Your task to perform on an android device: Clear all items from cart on amazon.com. Search for "razer huntsman" on amazon.com, select the first entry, add it to the cart, then select checkout. Image 0: 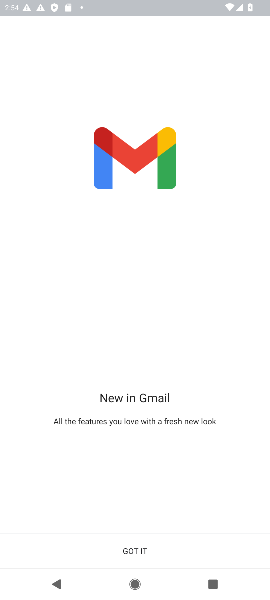
Step 0: press home button
Your task to perform on an android device: Clear all items from cart on amazon.com. Search for "razer huntsman" on amazon.com, select the first entry, add it to the cart, then select checkout. Image 1: 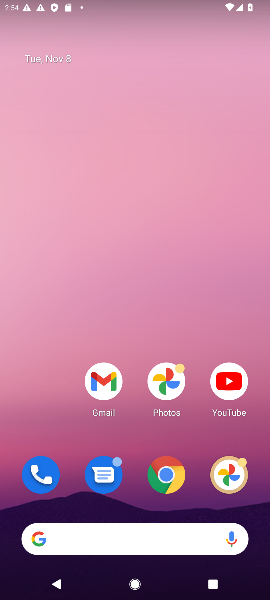
Step 1: drag from (115, 491) to (138, 34)
Your task to perform on an android device: Clear all items from cart on amazon.com. Search for "razer huntsman" on amazon.com, select the first entry, add it to the cart, then select checkout. Image 2: 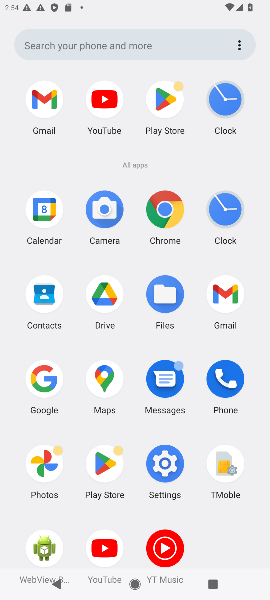
Step 2: click (41, 377)
Your task to perform on an android device: Clear all items from cart on amazon.com. Search for "razer huntsman" on amazon.com, select the first entry, add it to the cart, then select checkout. Image 3: 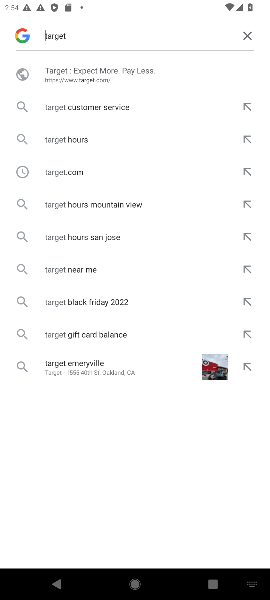
Step 3: click (244, 35)
Your task to perform on an android device: Clear all items from cart on amazon.com. Search for "razer huntsman" on amazon.com, select the first entry, add it to the cart, then select checkout. Image 4: 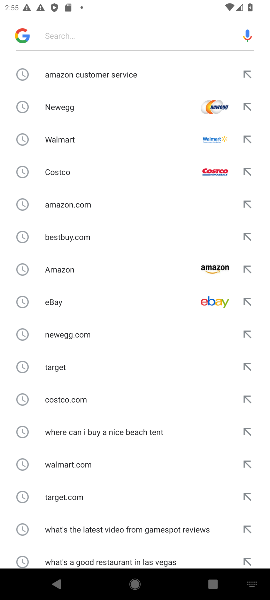
Step 4: click (82, 70)
Your task to perform on an android device: Clear all items from cart on amazon.com. Search for "razer huntsman" on amazon.com, select the first entry, add it to the cart, then select checkout. Image 5: 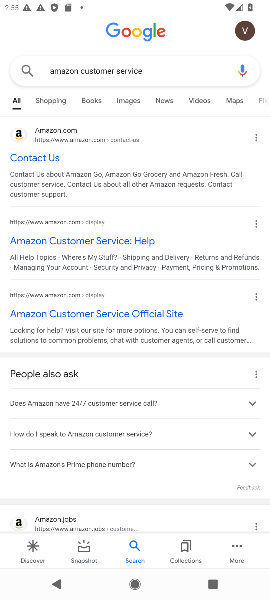
Step 5: click (22, 126)
Your task to perform on an android device: Clear all items from cart on amazon.com. Search for "razer huntsman" on amazon.com, select the first entry, add it to the cart, then select checkout. Image 6: 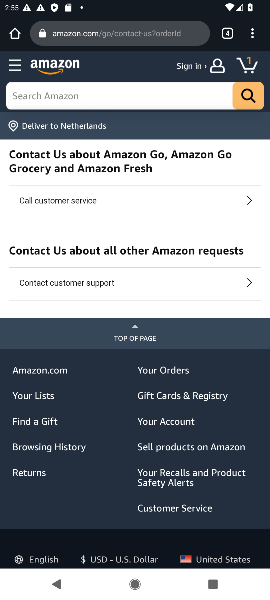
Step 6: click (83, 86)
Your task to perform on an android device: Clear all items from cart on amazon.com. Search for "razer huntsman" on amazon.com, select the first entry, add it to the cart, then select checkout. Image 7: 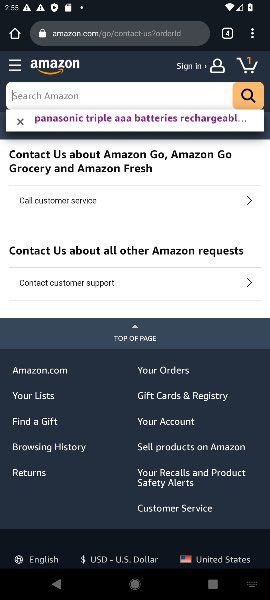
Step 7: type "razer huntsman "
Your task to perform on an android device: Clear all items from cart on amazon.com. Search for "razer huntsman" on amazon.com, select the first entry, add it to the cart, then select checkout. Image 8: 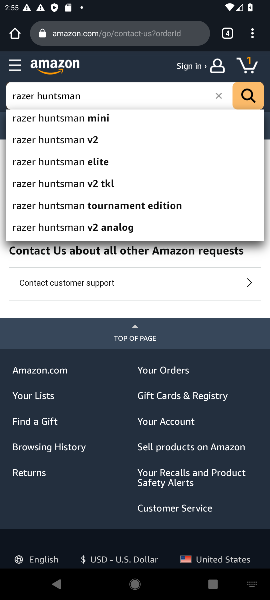
Step 8: click (73, 115)
Your task to perform on an android device: Clear all items from cart on amazon.com. Search for "razer huntsman" on amazon.com, select the first entry, add it to the cart, then select checkout. Image 9: 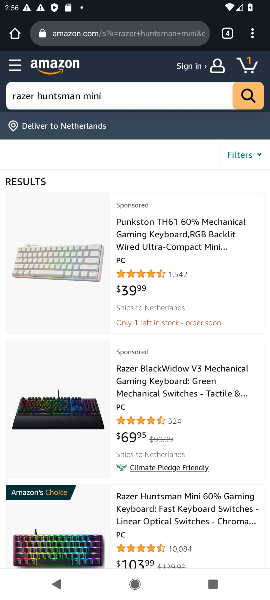
Step 9: click (183, 515)
Your task to perform on an android device: Clear all items from cart on amazon.com. Search for "razer huntsman" on amazon.com, select the first entry, add it to the cart, then select checkout. Image 10: 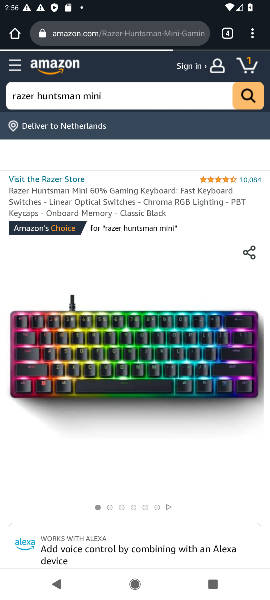
Step 10: drag from (158, 518) to (186, 159)
Your task to perform on an android device: Clear all items from cart on amazon.com. Search for "razer huntsman" on amazon.com, select the first entry, add it to the cart, then select checkout. Image 11: 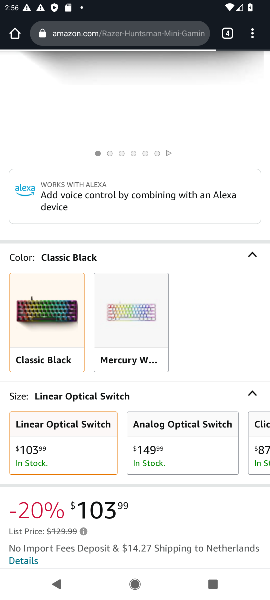
Step 11: drag from (91, 521) to (123, 117)
Your task to perform on an android device: Clear all items from cart on amazon.com. Search for "razer huntsman" on amazon.com, select the first entry, add it to the cart, then select checkout. Image 12: 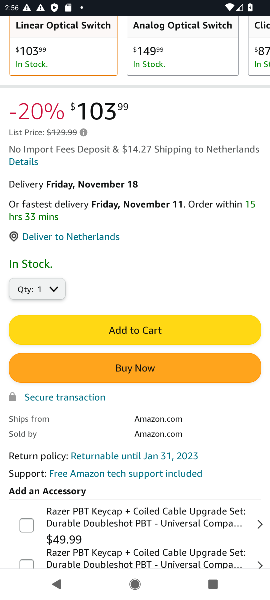
Step 12: click (136, 326)
Your task to perform on an android device: Clear all items from cart on amazon.com. Search for "razer huntsman" on amazon.com, select the first entry, add it to the cart, then select checkout. Image 13: 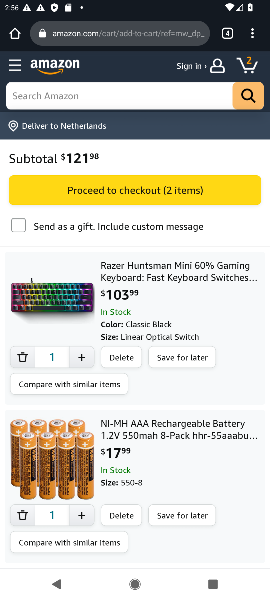
Step 13: task complete